Your task to perform on an android device: Open Maps and search for coffee Image 0: 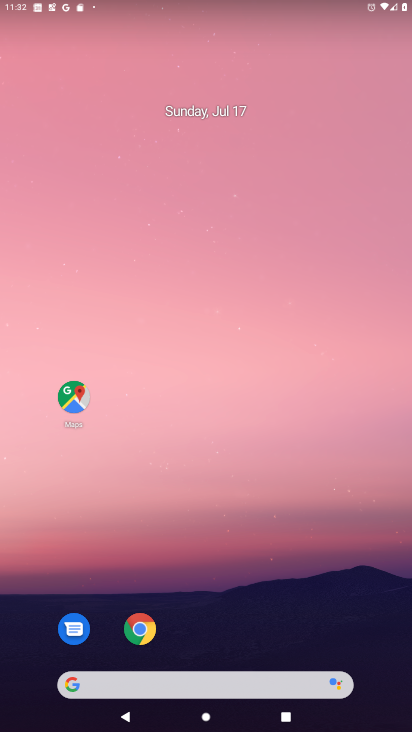
Step 0: click (72, 400)
Your task to perform on an android device: Open Maps and search for coffee Image 1: 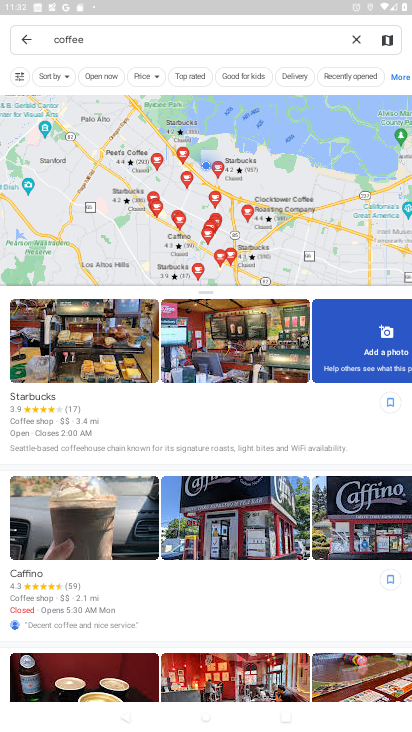
Step 1: task complete